Your task to perform on an android device: Open Google Image 0: 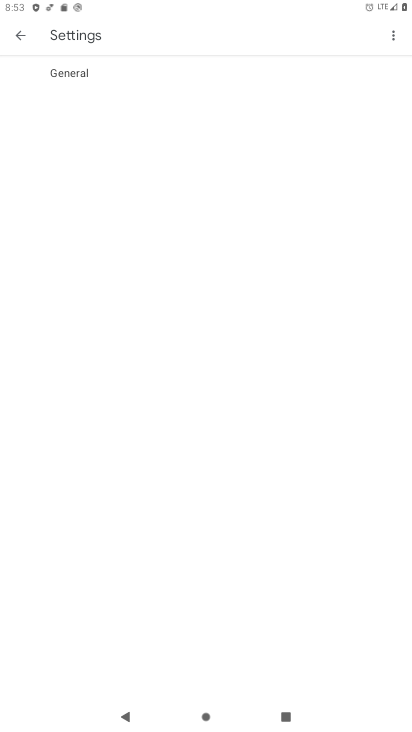
Step 0: press home button
Your task to perform on an android device: Open Google Image 1: 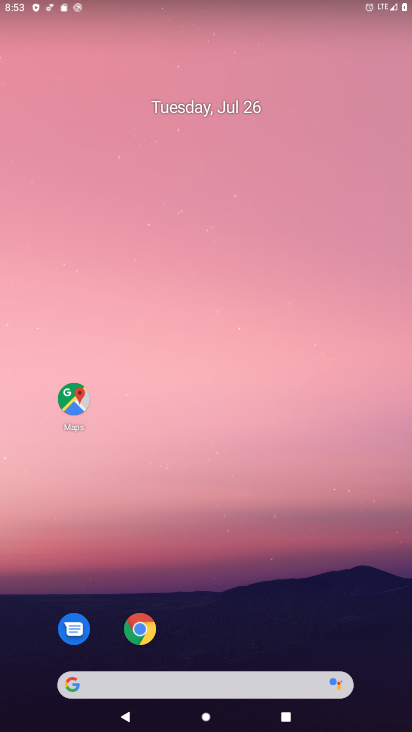
Step 1: click (189, 685)
Your task to perform on an android device: Open Google Image 2: 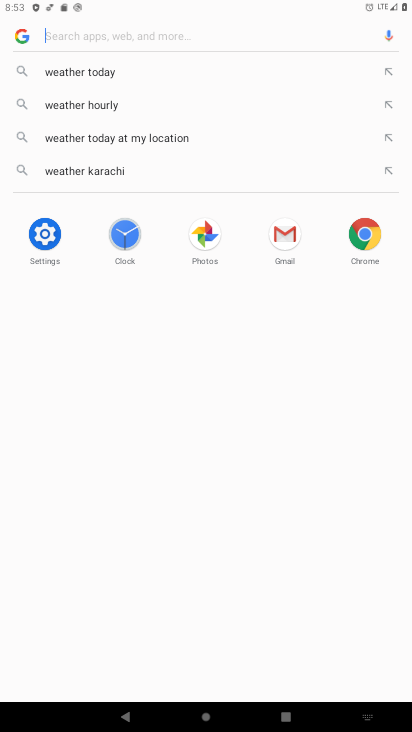
Step 2: task complete